Your task to perform on an android device: Open maps Image 0: 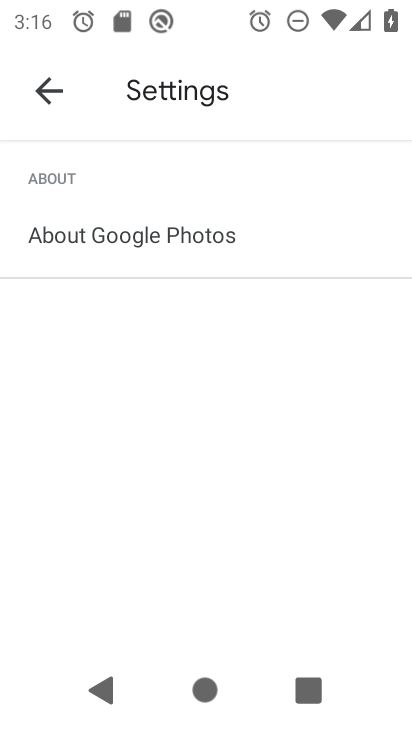
Step 0: press home button
Your task to perform on an android device: Open maps Image 1: 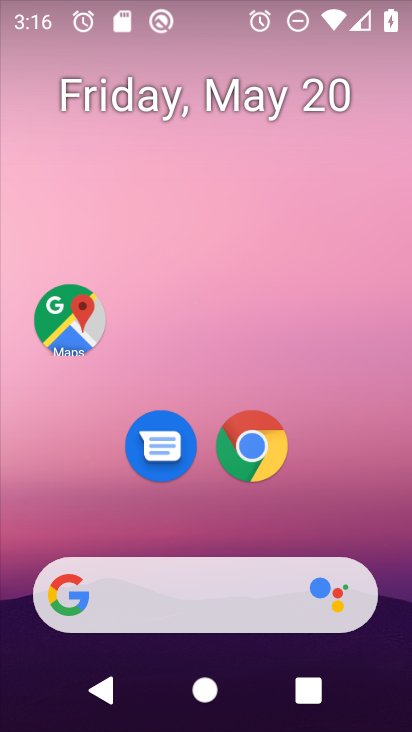
Step 1: click (69, 323)
Your task to perform on an android device: Open maps Image 2: 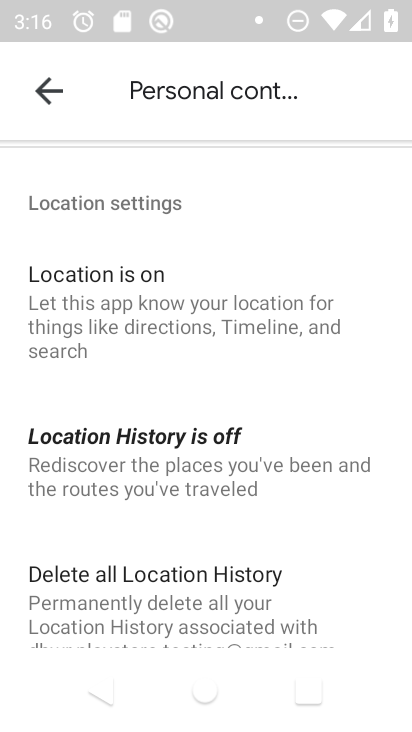
Step 2: click (54, 92)
Your task to perform on an android device: Open maps Image 3: 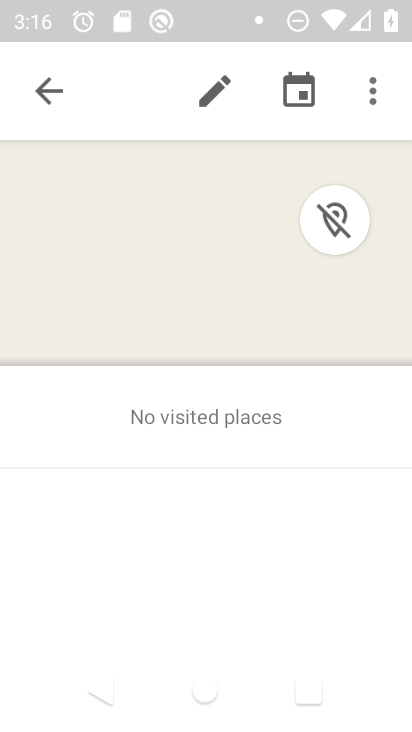
Step 3: click (54, 92)
Your task to perform on an android device: Open maps Image 4: 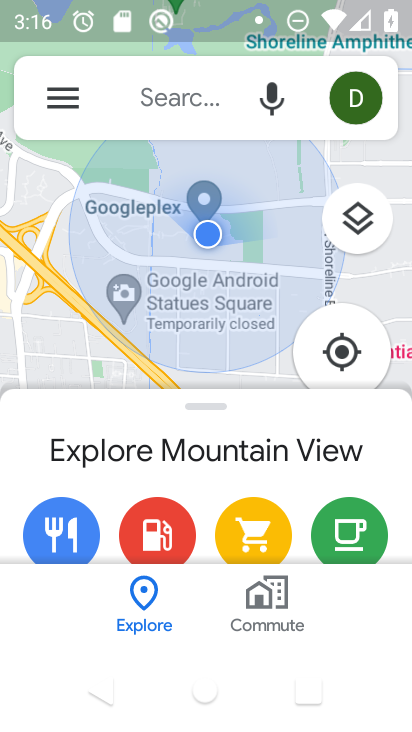
Step 4: task complete